Your task to perform on an android device: turn on notifications settings in the gmail app Image 0: 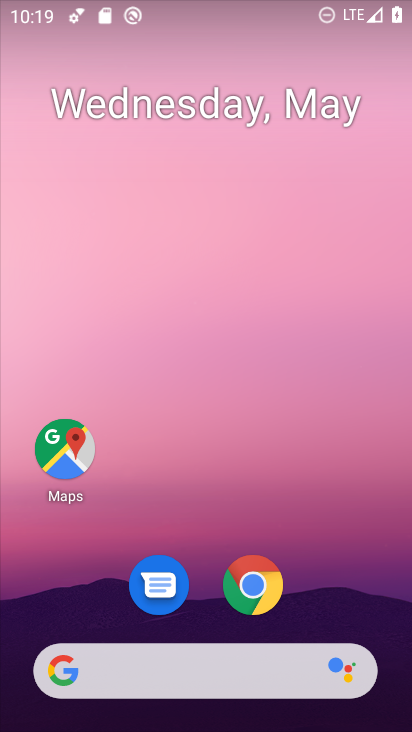
Step 0: drag from (236, 468) to (244, 25)
Your task to perform on an android device: turn on notifications settings in the gmail app Image 1: 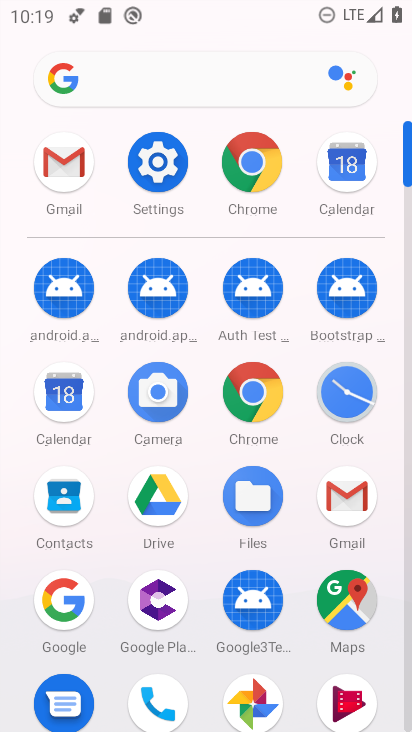
Step 1: click (344, 498)
Your task to perform on an android device: turn on notifications settings in the gmail app Image 2: 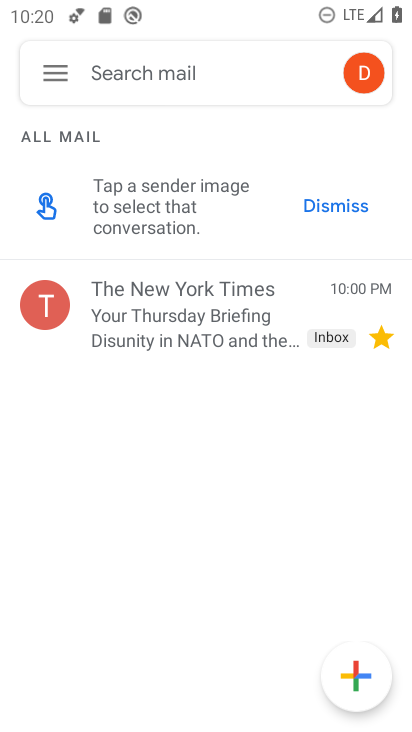
Step 2: click (52, 70)
Your task to perform on an android device: turn on notifications settings in the gmail app Image 3: 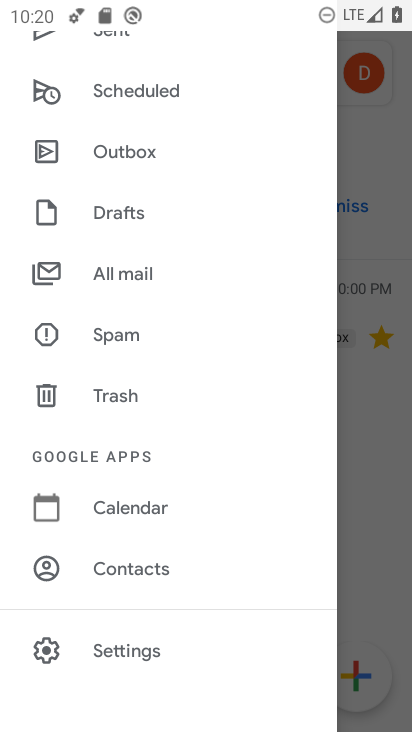
Step 3: click (138, 636)
Your task to perform on an android device: turn on notifications settings in the gmail app Image 4: 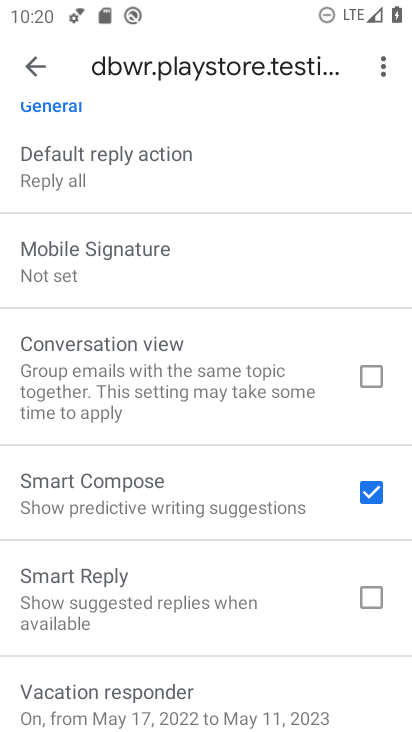
Step 4: drag from (199, 254) to (238, 569)
Your task to perform on an android device: turn on notifications settings in the gmail app Image 5: 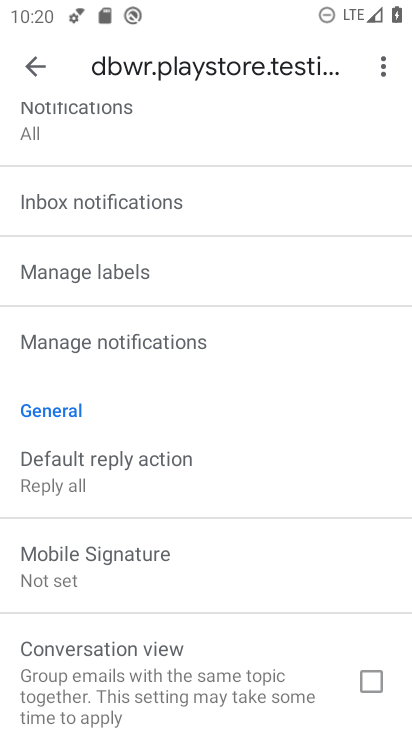
Step 5: click (172, 340)
Your task to perform on an android device: turn on notifications settings in the gmail app Image 6: 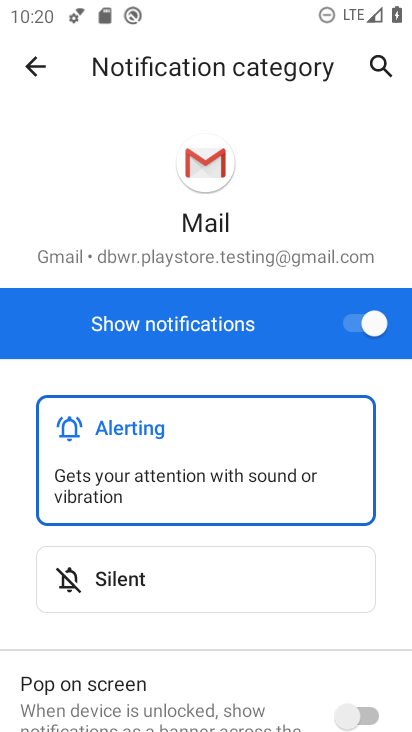
Step 6: task complete